Your task to perform on an android device: remove spam from my inbox in the gmail app Image 0: 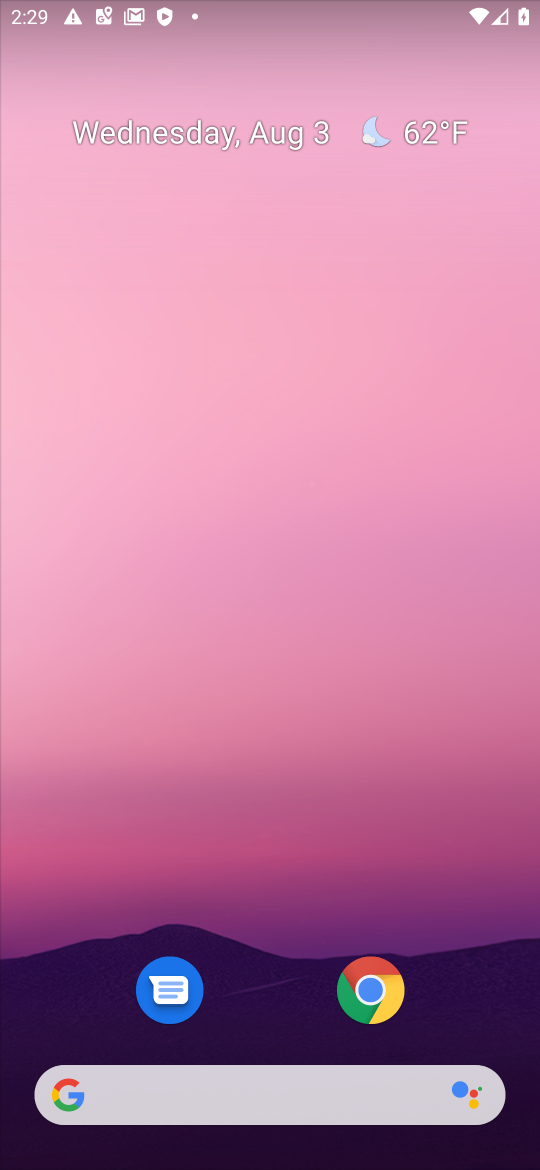
Step 0: drag from (310, 643) to (302, 1)
Your task to perform on an android device: remove spam from my inbox in the gmail app Image 1: 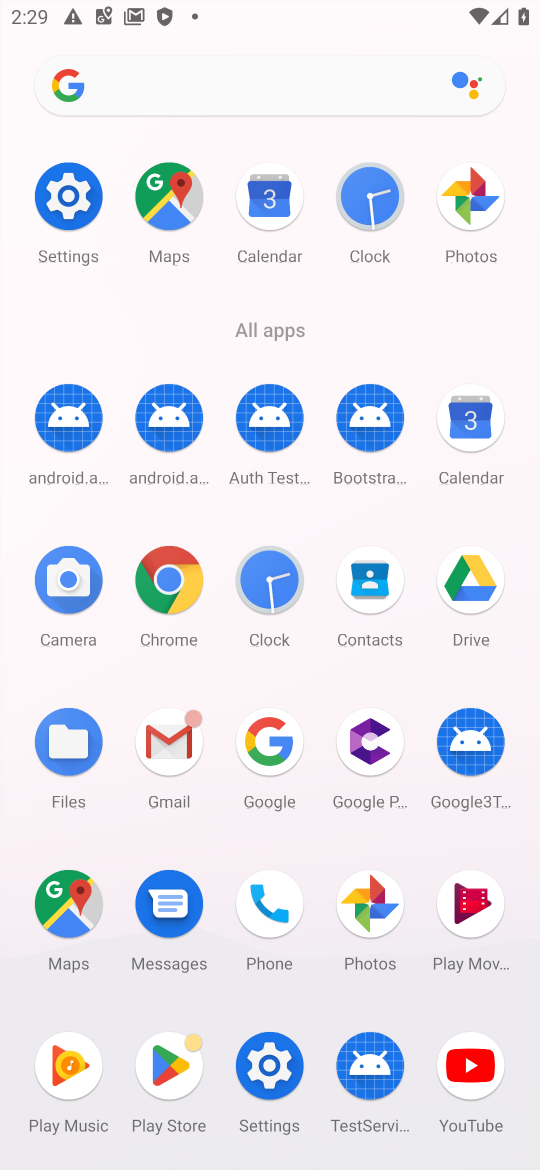
Step 1: click (171, 735)
Your task to perform on an android device: remove spam from my inbox in the gmail app Image 2: 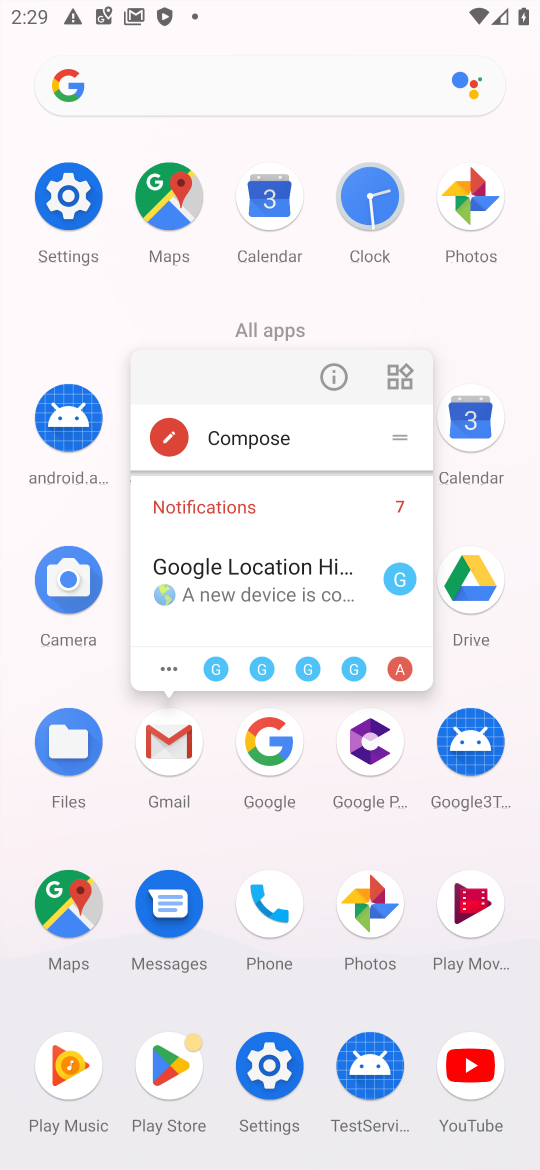
Step 2: click (174, 749)
Your task to perform on an android device: remove spam from my inbox in the gmail app Image 3: 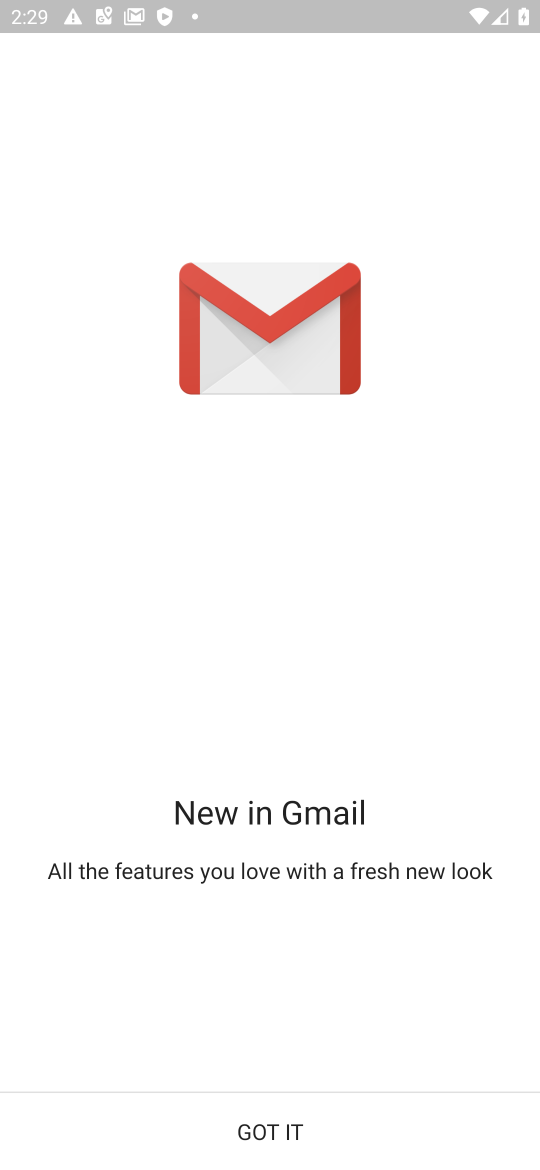
Step 3: click (280, 1120)
Your task to perform on an android device: remove spam from my inbox in the gmail app Image 4: 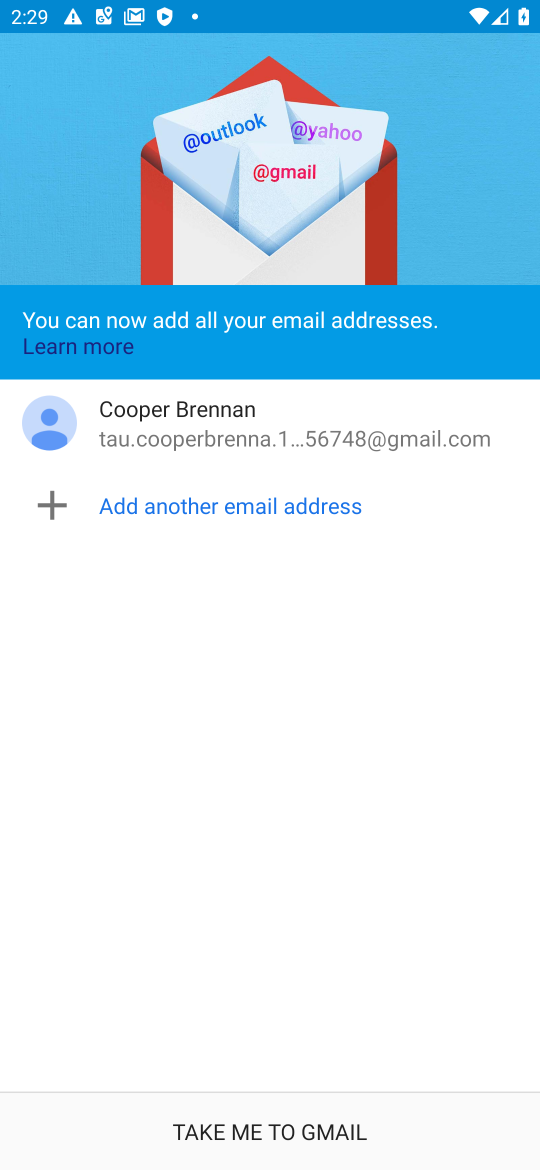
Step 4: click (279, 1121)
Your task to perform on an android device: remove spam from my inbox in the gmail app Image 5: 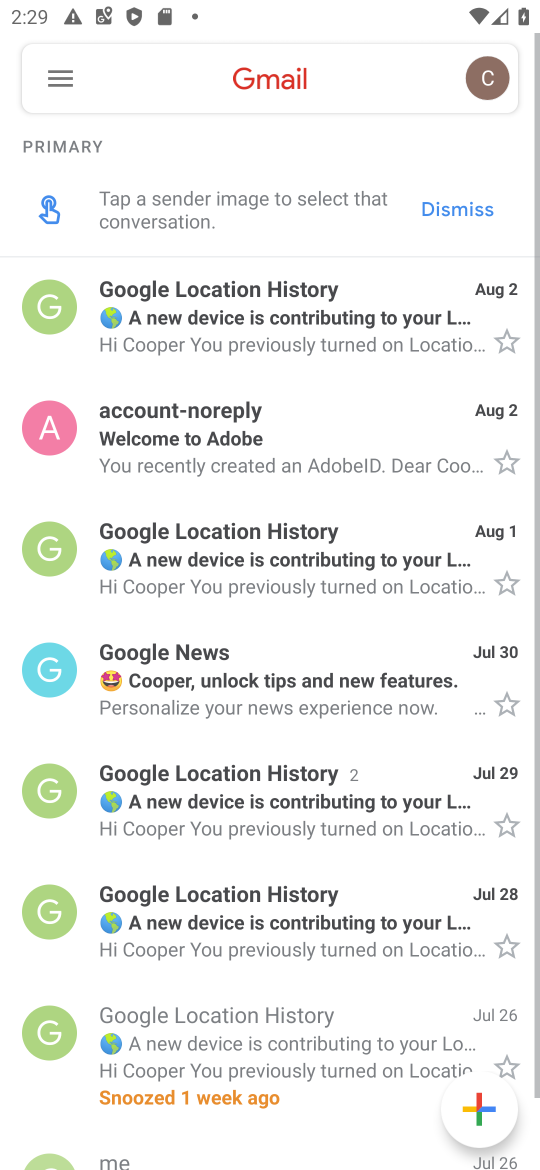
Step 5: click (57, 77)
Your task to perform on an android device: remove spam from my inbox in the gmail app Image 6: 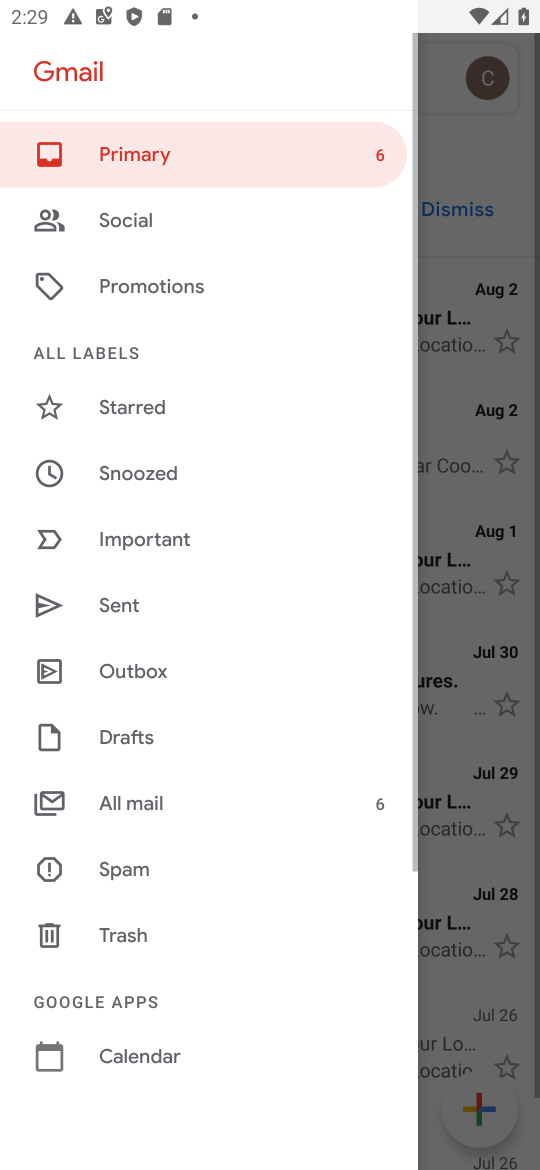
Step 6: click (135, 885)
Your task to perform on an android device: remove spam from my inbox in the gmail app Image 7: 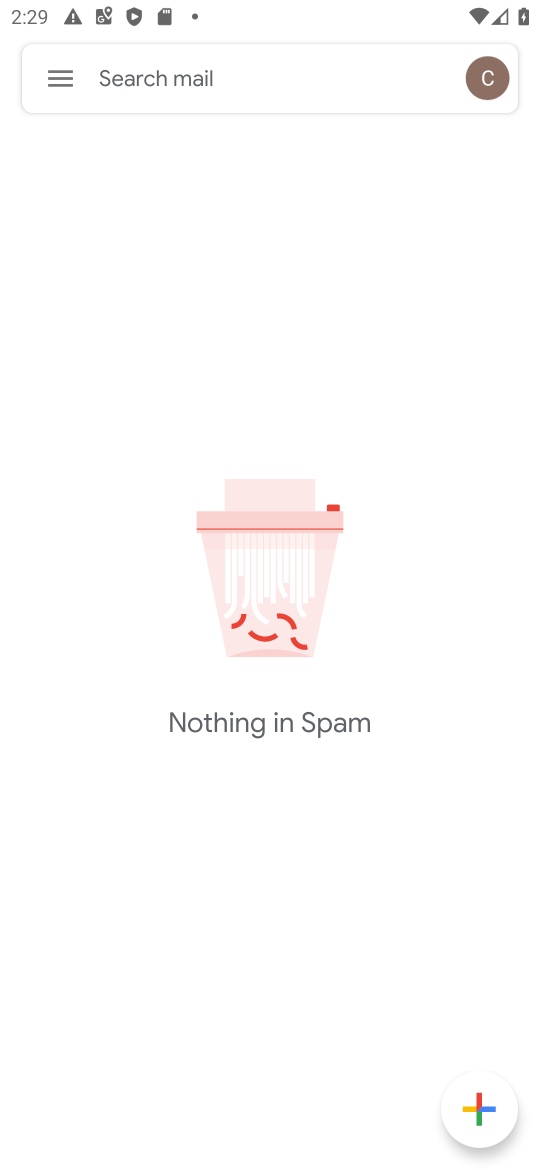
Step 7: task complete